Your task to perform on an android device: Show me the alarms in the clock app Image 0: 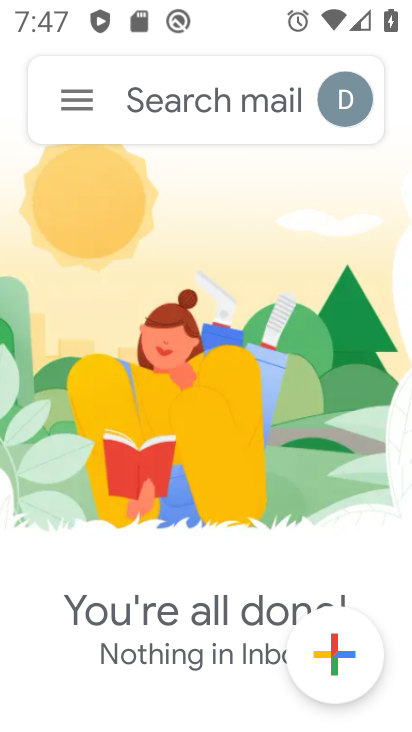
Step 0: press home button
Your task to perform on an android device: Show me the alarms in the clock app Image 1: 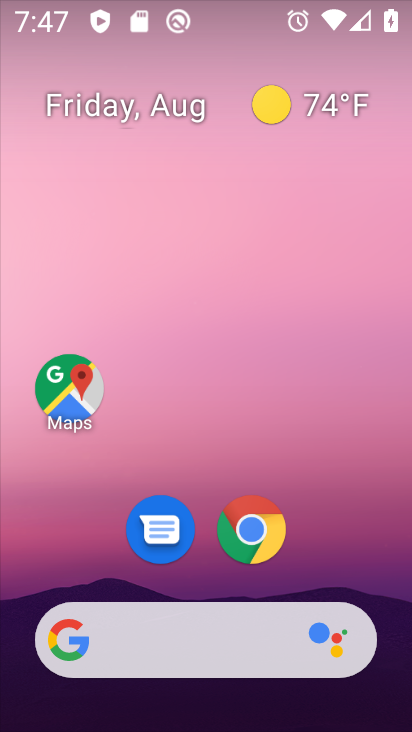
Step 1: drag from (214, 648) to (314, 151)
Your task to perform on an android device: Show me the alarms in the clock app Image 2: 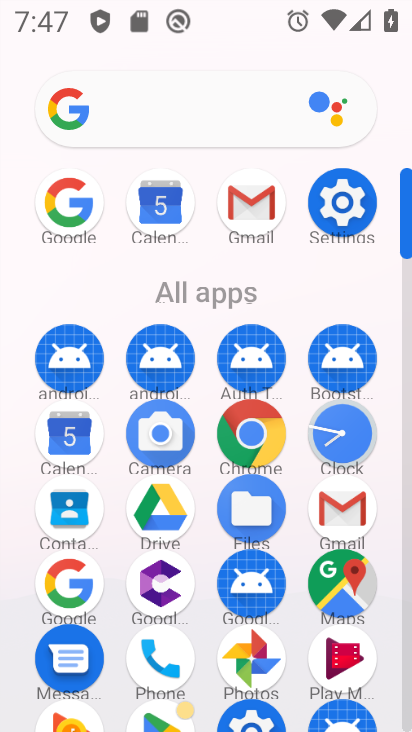
Step 2: drag from (198, 595) to (216, 414)
Your task to perform on an android device: Show me the alarms in the clock app Image 3: 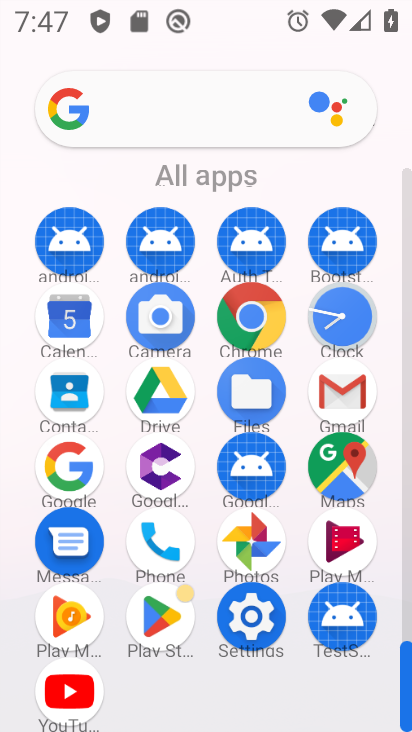
Step 3: click (343, 317)
Your task to perform on an android device: Show me the alarms in the clock app Image 4: 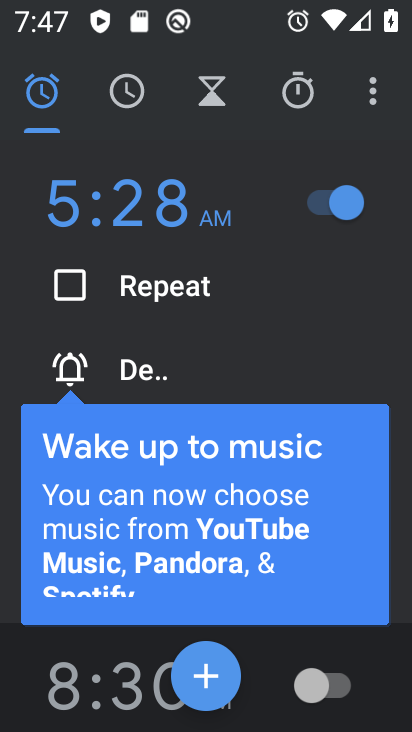
Step 4: drag from (284, 617) to (307, 253)
Your task to perform on an android device: Show me the alarms in the clock app Image 5: 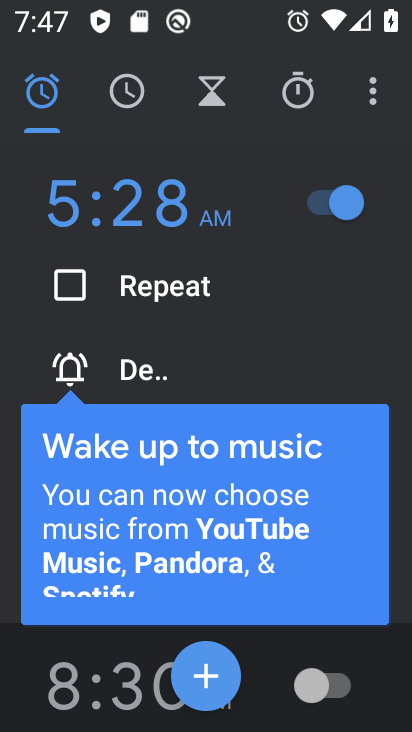
Step 5: click (203, 684)
Your task to perform on an android device: Show me the alarms in the clock app Image 6: 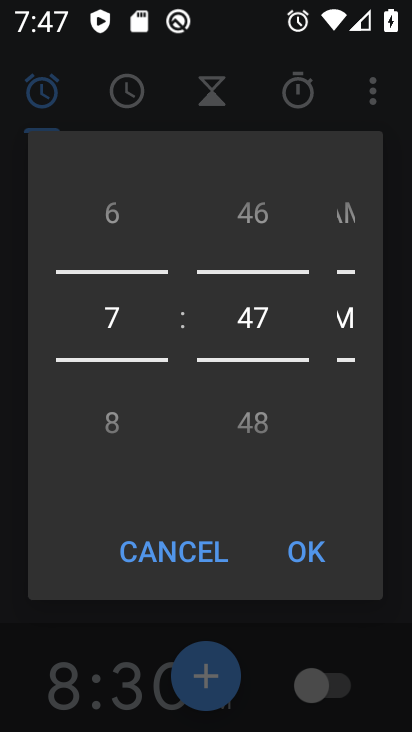
Step 6: drag from (130, 242) to (131, 476)
Your task to perform on an android device: Show me the alarms in the clock app Image 7: 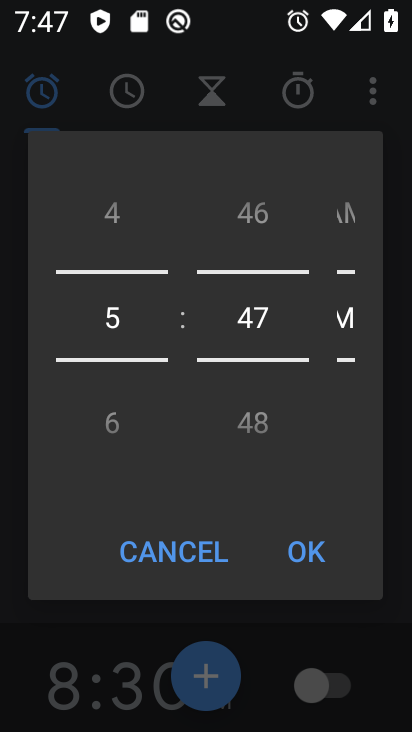
Step 7: drag from (132, 259) to (140, 437)
Your task to perform on an android device: Show me the alarms in the clock app Image 8: 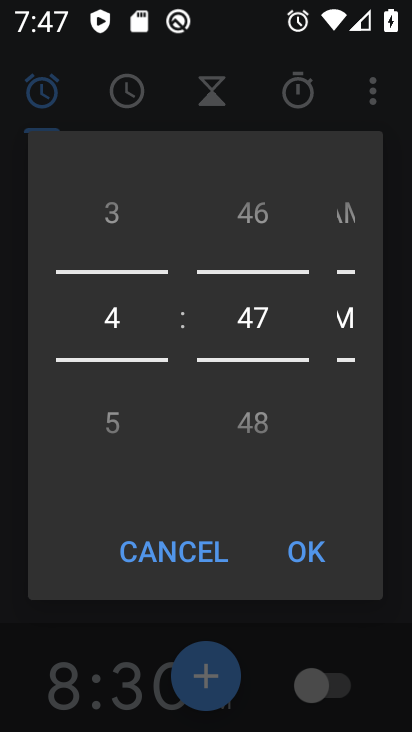
Step 8: drag from (132, 223) to (142, 427)
Your task to perform on an android device: Show me the alarms in the clock app Image 9: 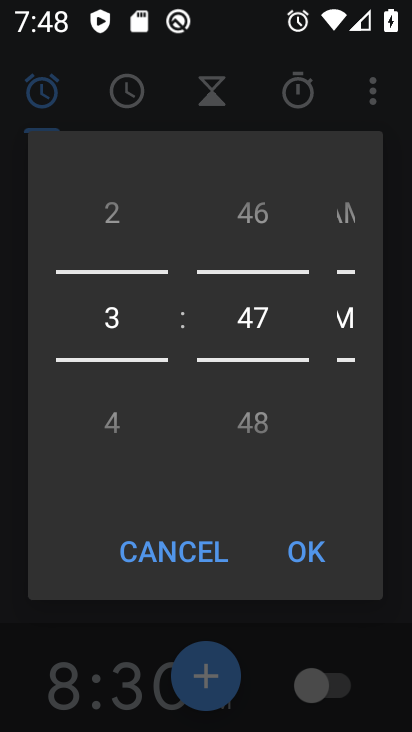
Step 9: drag from (249, 362) to (299, 149)
Your task to perform on an android device: Show me the alarms in the clock app Image 10: 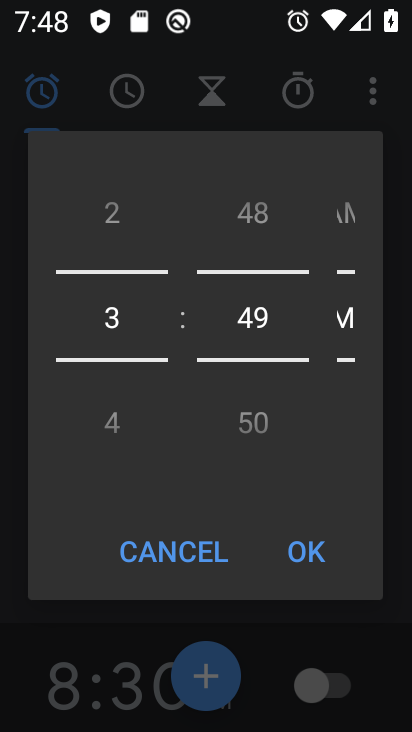
Step 10: drag from (337, 308) to (371, 422)
Your task to perform on an android device: Show me the alarms in the clock app Image 11: 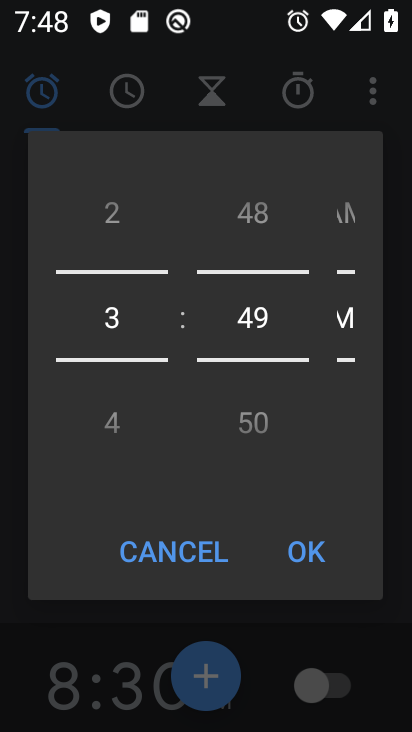
Step 11: drag from (344, 230) to (338, 400)
Your task to perform on an android device: Show me the alarms in the clock app Image 12: 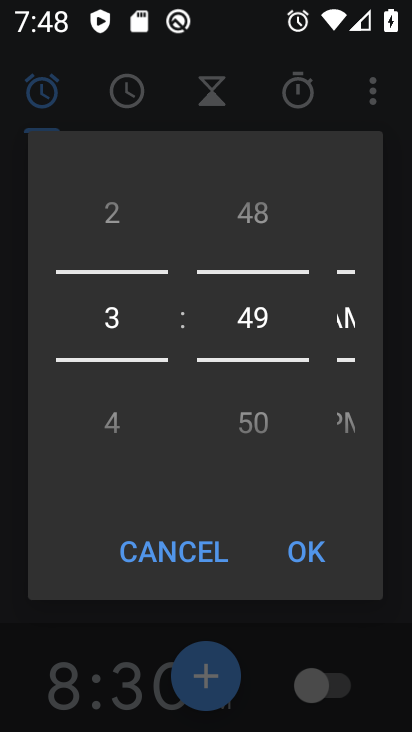
Step 12: click (301, 560)
Your task to perform on an android device: Show me the alarms in the clock app Image 13: 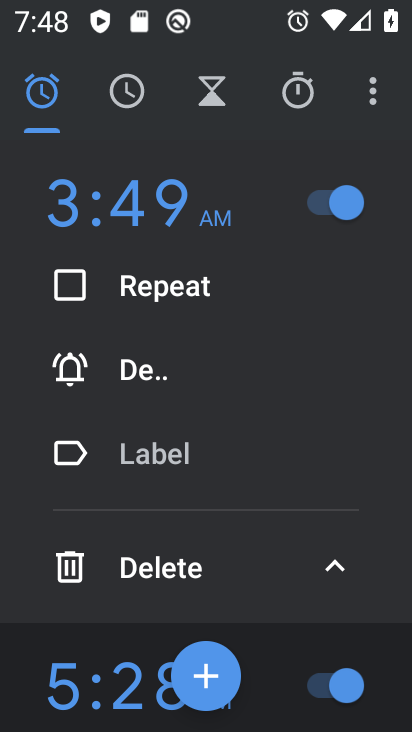
Step 13: task complete